Your task to perform on an android device: turn on wifi Image 0: 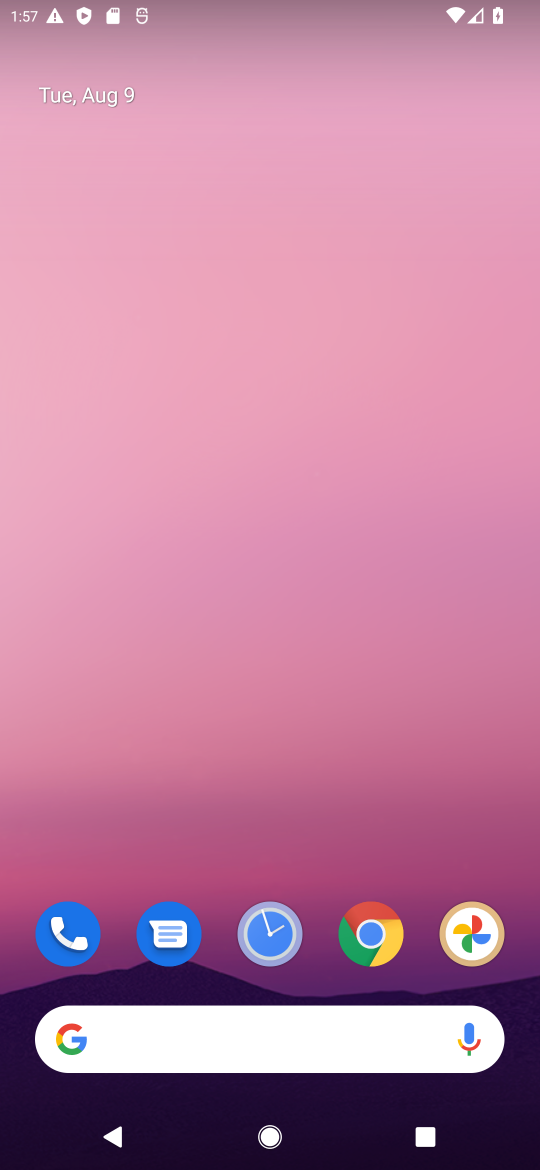
Step 0: drag from (325, 990) to (391, 50)
Your task to perform on an android device: turn on wifi Image 1: 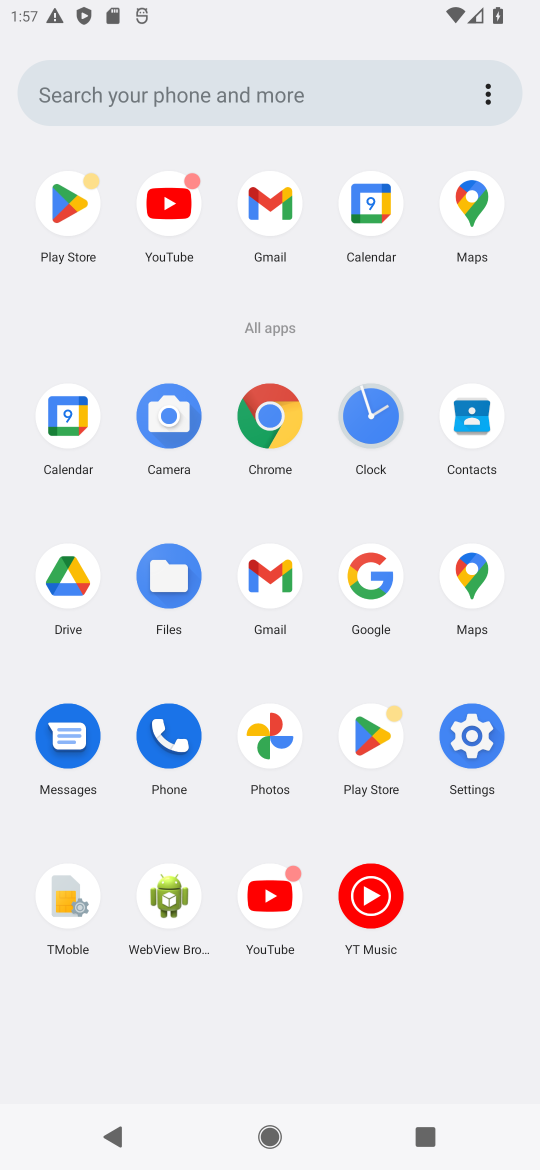
Step 1: click (460, 776)
Your task to perform on an android device: turn on wifi Image 2: 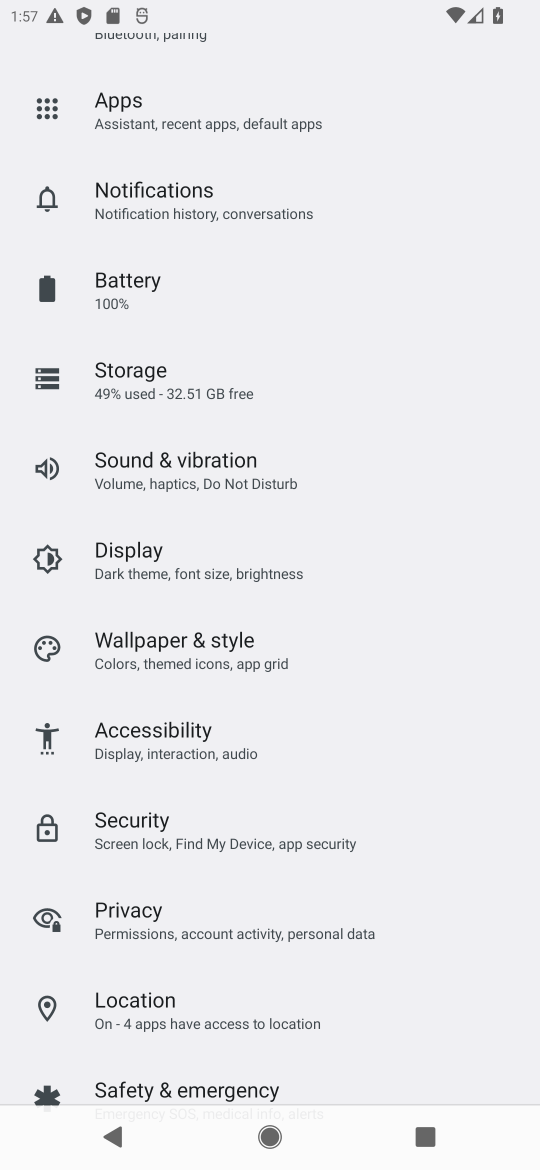
Step 2: drag from (248, 482) to (198, 1148)
Your task to perform on an android device: turn on wifi Image 3: 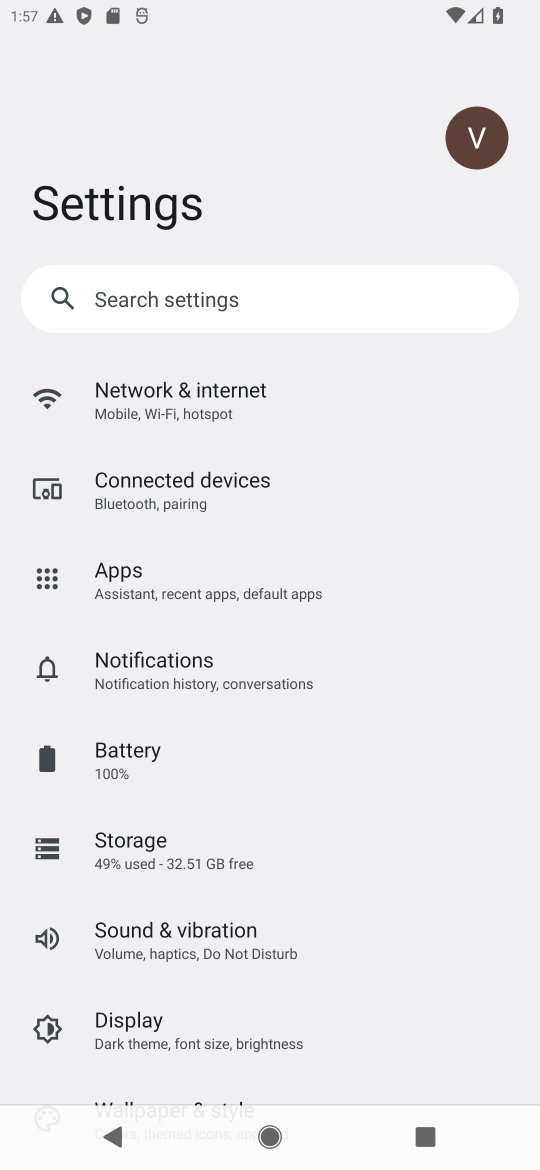
Step 3: click (225, 398)
Your task to perform on an android device: turn on wifi Image 4: 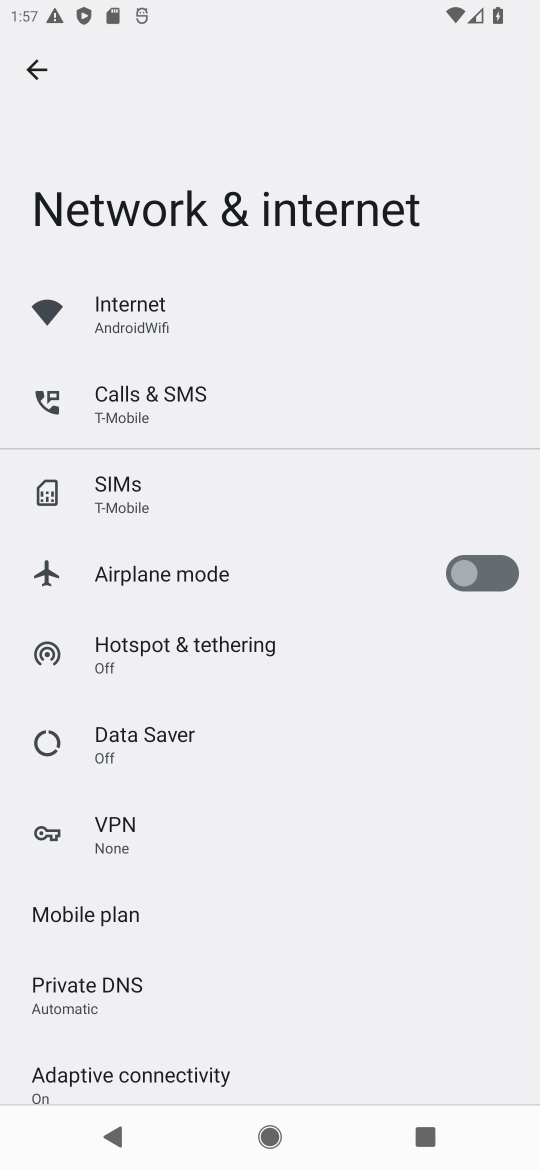
Step 4: task complete